Your task to perform on an android device: all mails in gmail Image 0: 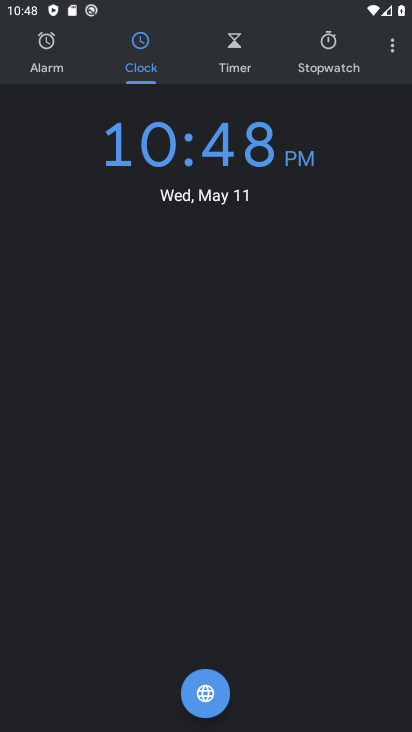
Step 0: press home button
Your task to perform on an android device: all mails in gmail Image 1: 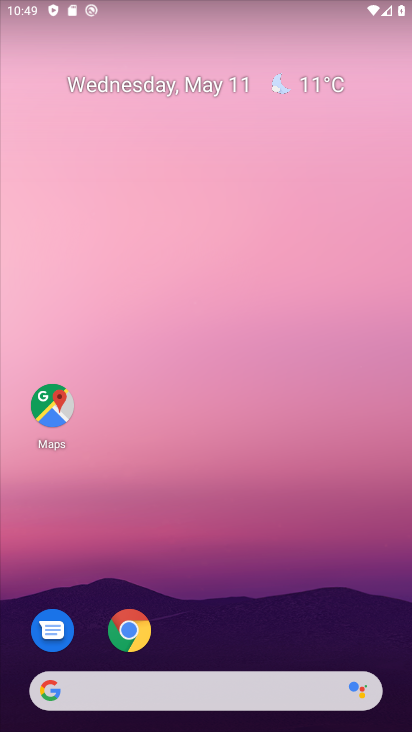
Step 1: drag from (204, 617) to (201, 376)
Your task to perform on an android device: all mails in gmail Image 2: 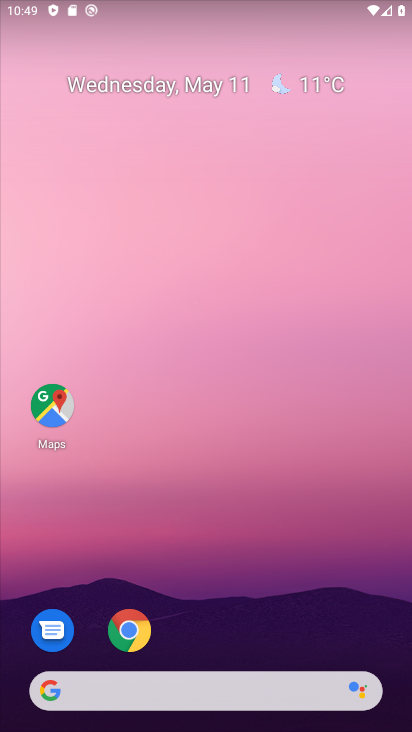
Step 2: drag from (193, 661) to (235, 309)
Your task to perform on an android device: all mails in gmail Image 3: 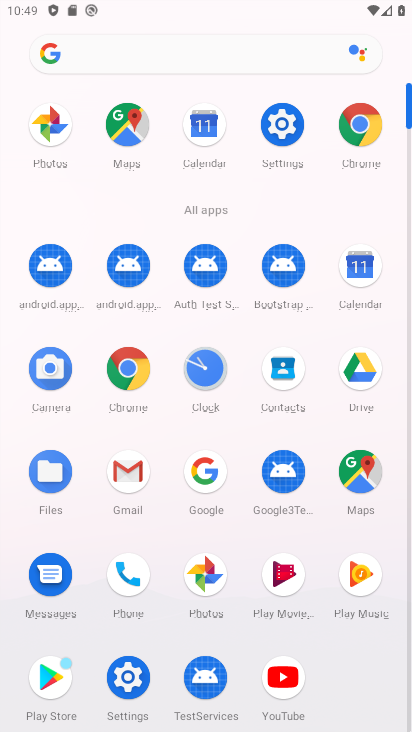
Step 3: click (112, 475)
Your task to perform on an android device: all mails in gmail Image 4: 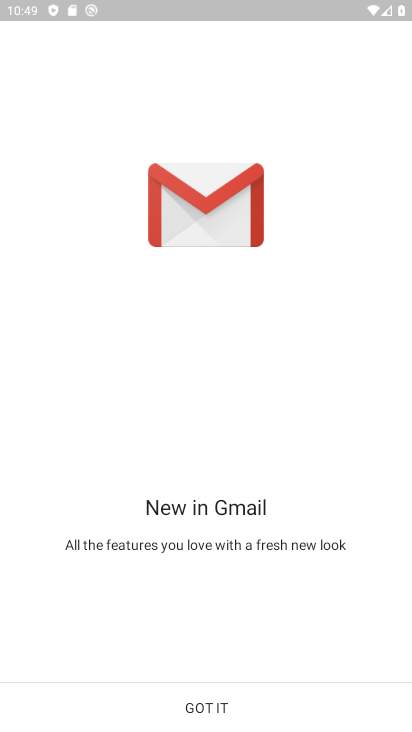
Step 4: click (204, 707)
Your task to perform on an android device: all mails in gmail Image 5: 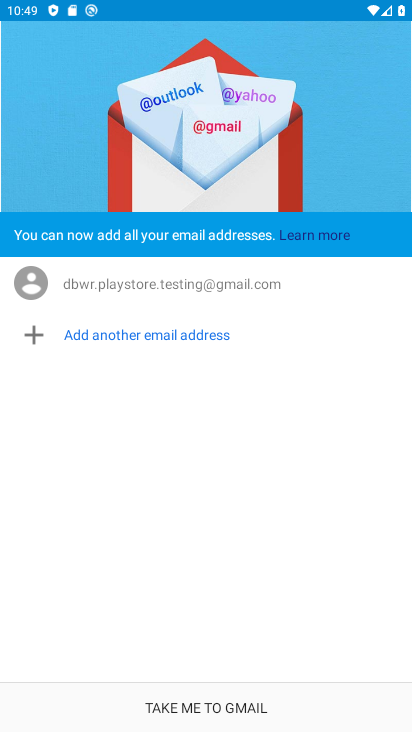
Step 5: click (204, 718)
Your task to perform on an android device: all mails in gmail Image 6: 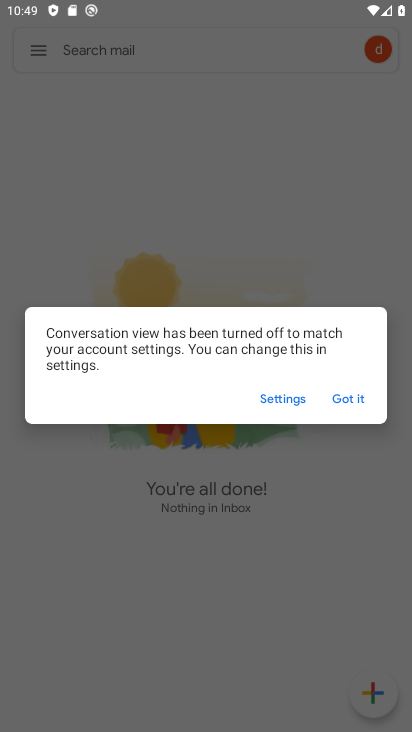
Step 6: click (334, 394)
Your task to perform on an android device: all mails in gmail Image 7: 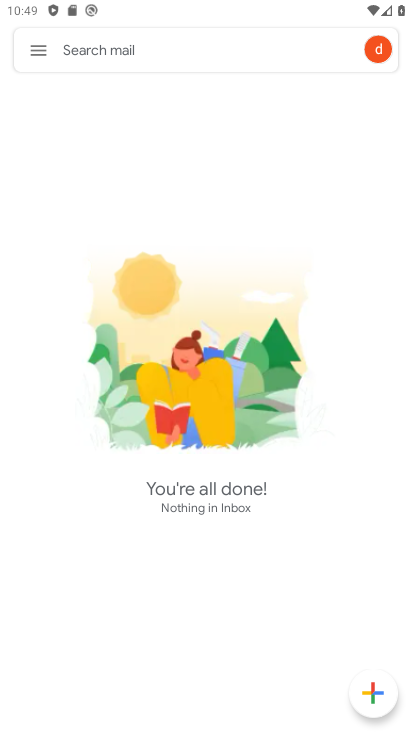
Step 7: click (32, 54)
Your task to perform on an android device: all mails in gmail Image 8: 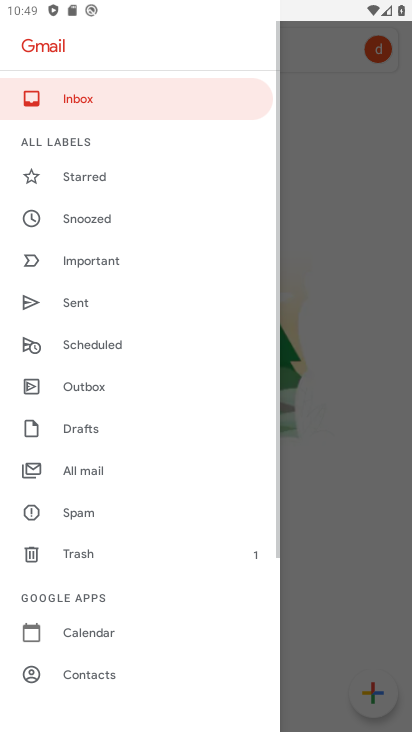
Step 8: click (89, 472)
Your task to perform on an android device: all mails in gmail Image 9: 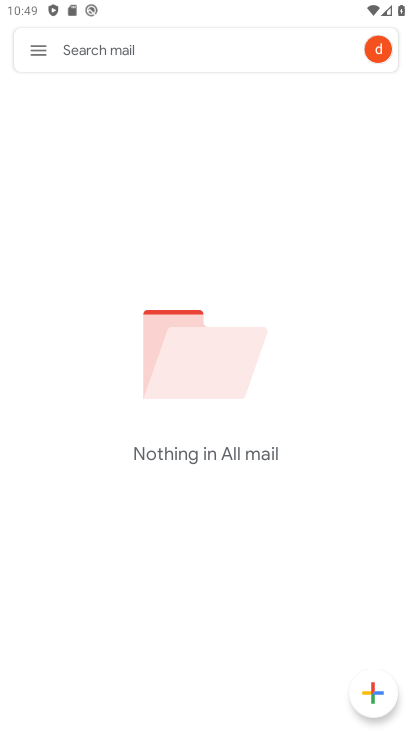
Step 9: task complete